Your task to perform on an android device: remove spam from my inbox in the gmail app Image 0: 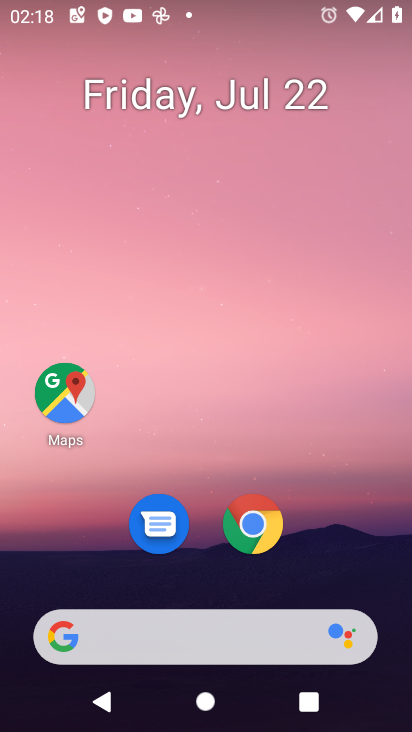
Step 0: press home button
Your task to perform on an android device: remove spam from my inbox in the gmail app Image 1: 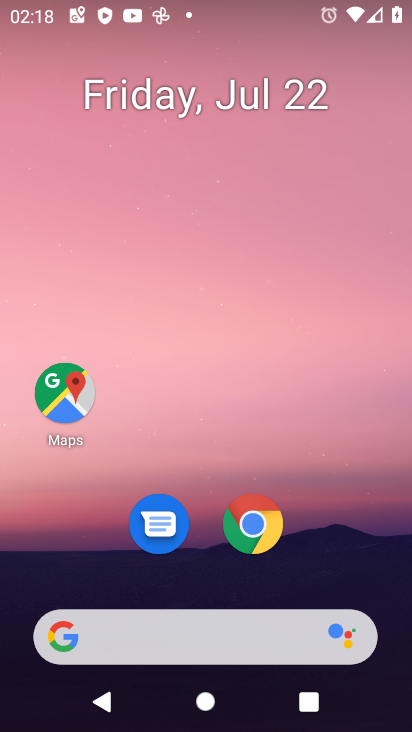
Step 1: drag from (231, 648) to (347, 188)
Your task to perform on an android device: remove spam from my inbox in the gmail app Image 2: 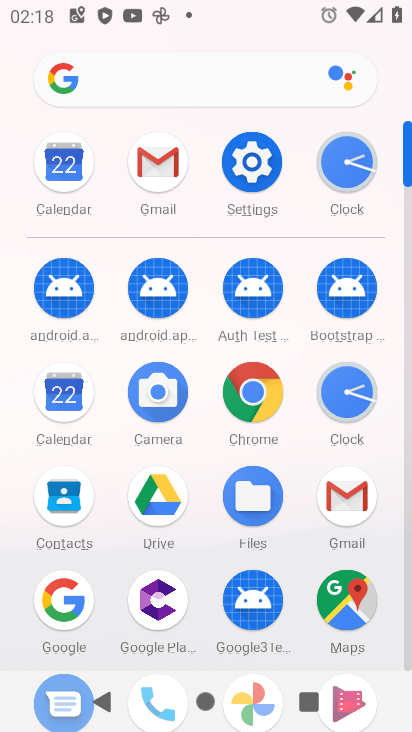
Step 2: click (157, 169)
Your task to perform on an android device: remove spam from my inbox in the gmail app Image 3: 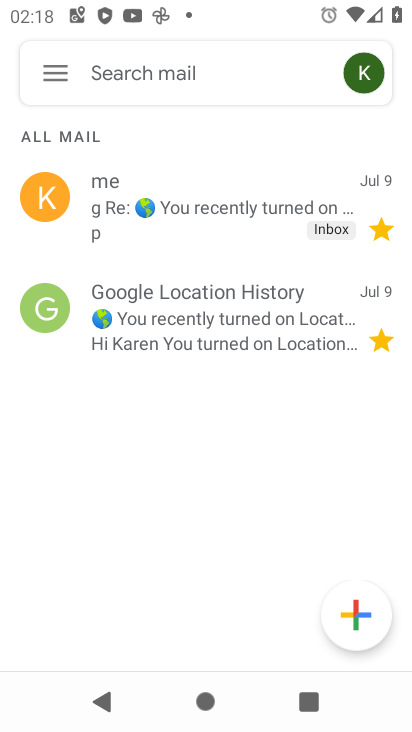
Step 3: click (53, 70)
Your task to perform on an android device: remove spam from my inbox in the gmail app Image 4: 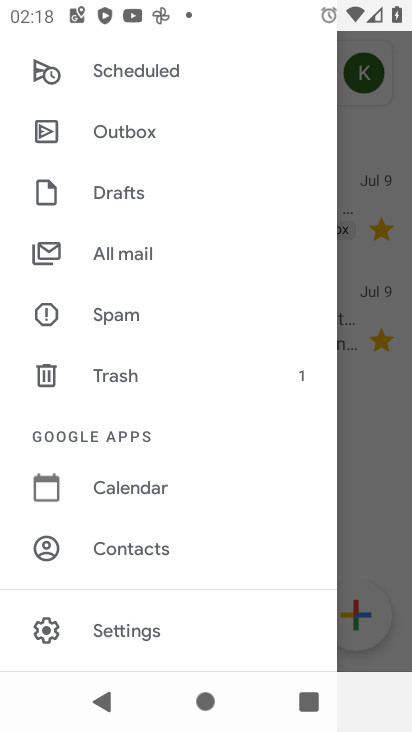
Step 4: click (147, 315)
Your task to perform on an android device: remove spam from my inbox in the gmail app Image 5: 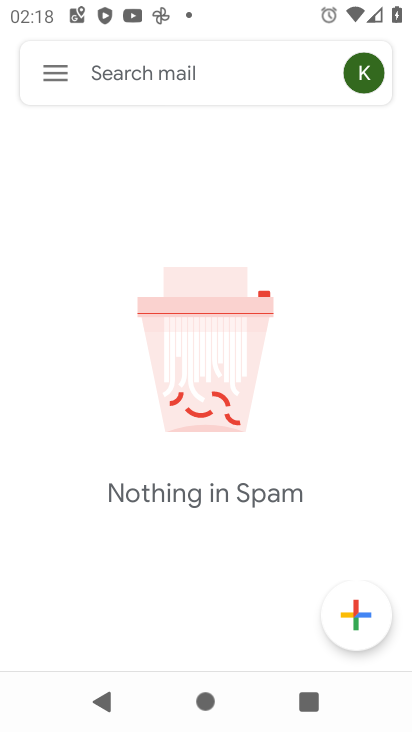
Step 5: task complete